Your task to perform on an android device: uninstall "HBO Max: Stream TV & Movies" Image 0: 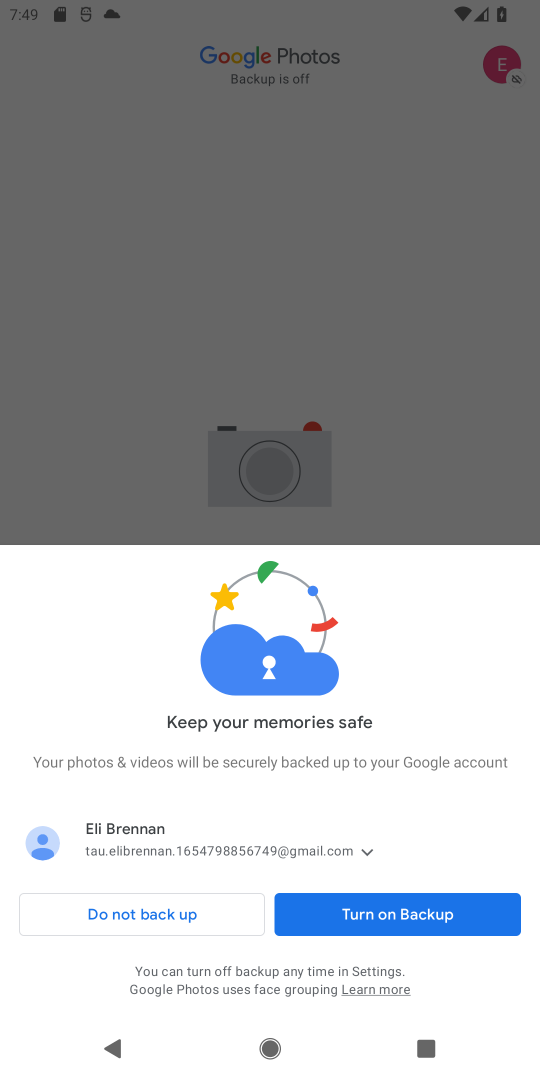
Step 0: press home button
Your task to perform on an android device: uninstall "HBO Max: Stream TV & Movies" Image 1: 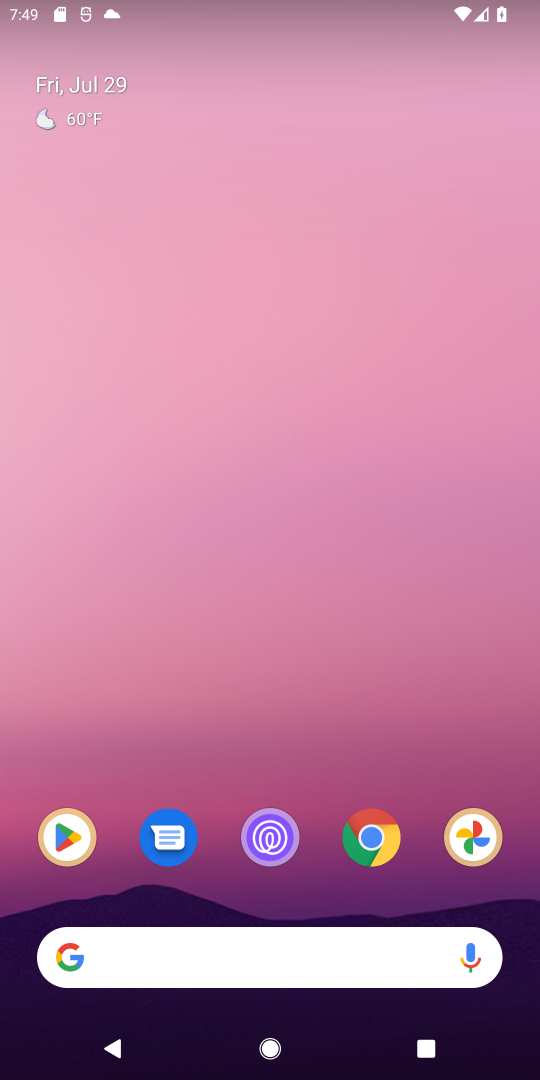
Step 1: click (69, 829)
Your task to perform on an android device: uninstall "HBO Max: Stream TV & Movies" Image 2: 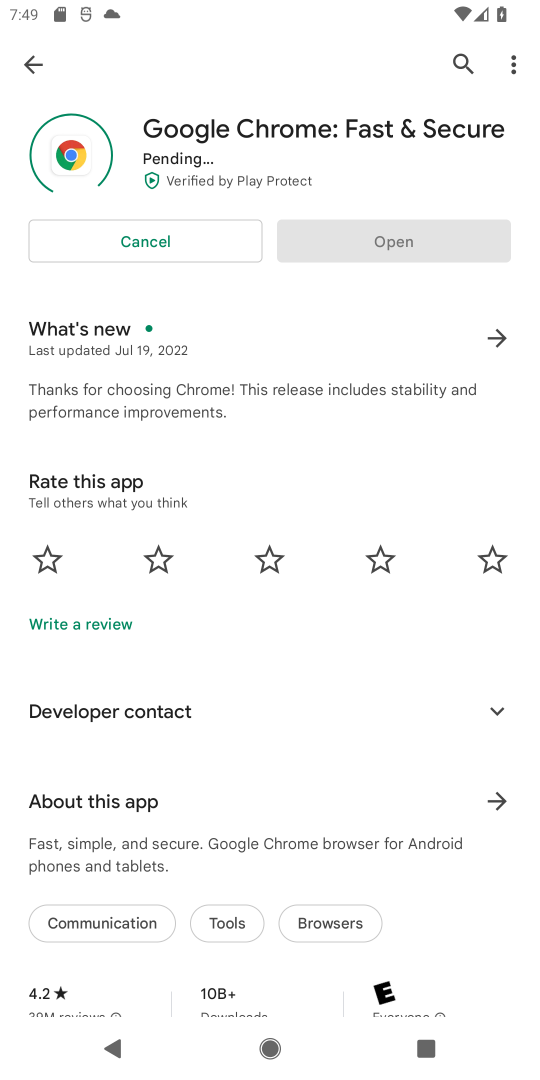
Step 2: click (445, 68)
Your task to perform on an android device: uninstall "HBO Max: Stream TV & Movies" Image 3: 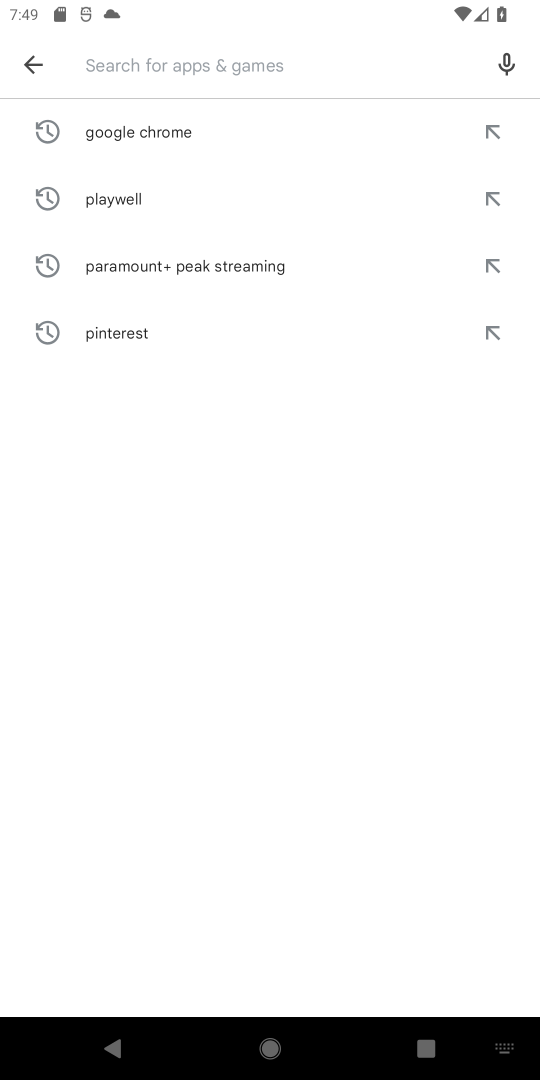
Step 3: type "HBO Max: Stream TV & movies"
Your task to perform on an android device: uninstall "HBO Max: Stream TV & Movies" Image 4: 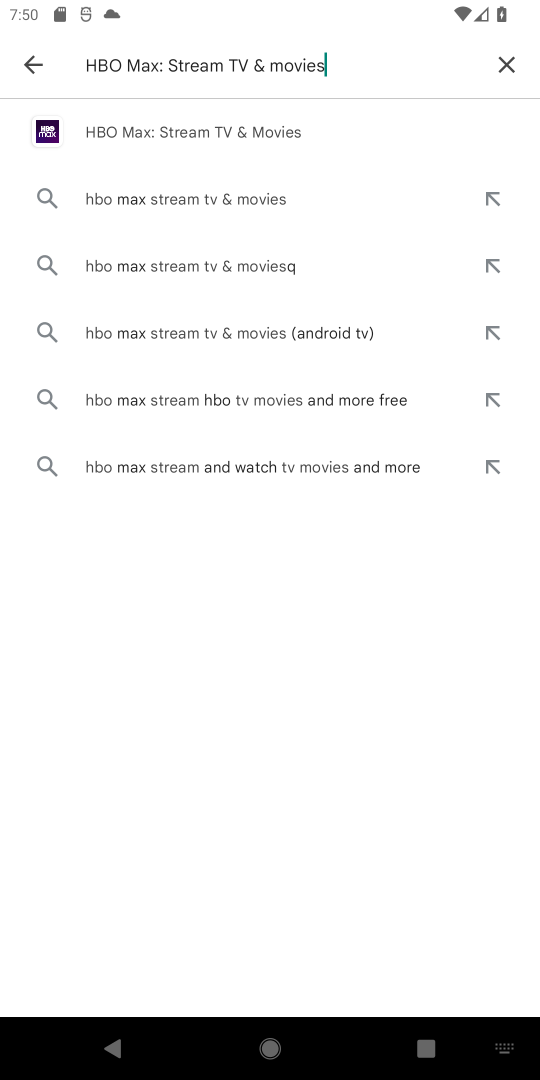
Step 4: click (147, 136)
Your task to perform on an android device: uninstall "HBO Max: Stream TV & Movies" Image 5: 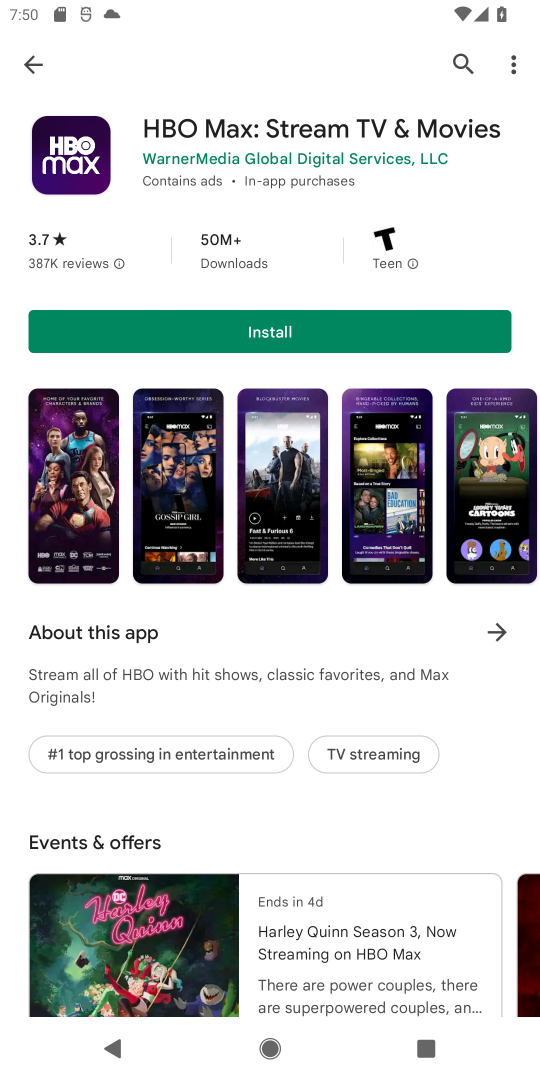
Step 5: task complete